Your task to perform on an android device: find which apps use the phone's location Image 0: 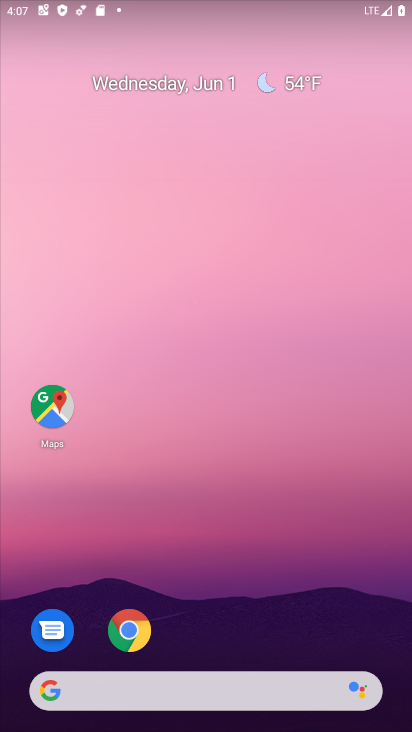
Step 0: drag from (263, 530) to (230, 3)
Your task to perform on an android device: find which apps use the phone's location Image 1: 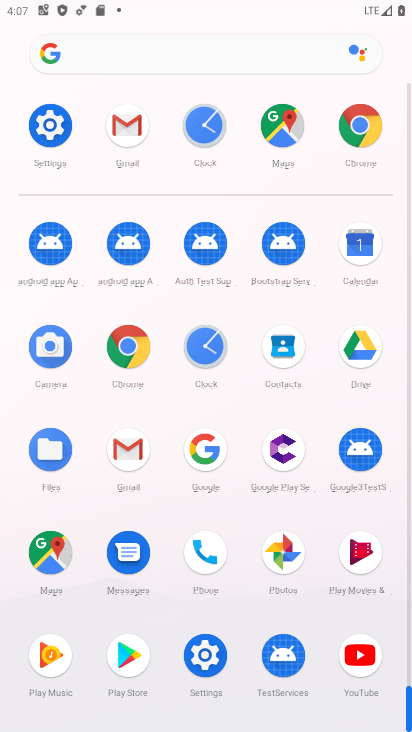
Step 1: drag from (0, 568) to (7, 197)
Your task to perform on an android device: find which apps use the phone's location Image 2: 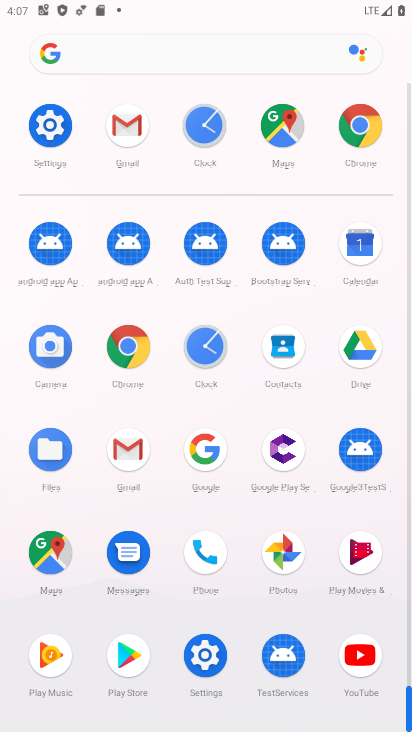
Step 2: click (201, 651)
Your task to perform on an android device: find which apps use the phone's location Image 3: 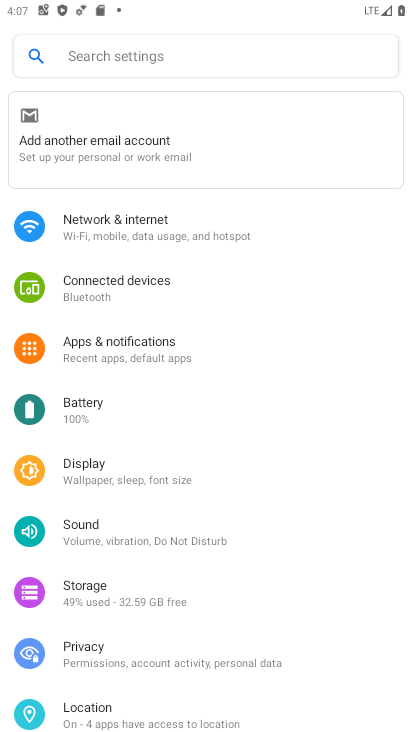
Step 3: drag from (220, 534) to (250, 92)
Your task to perform on an android device: find which apps use the phone's location Image 4: 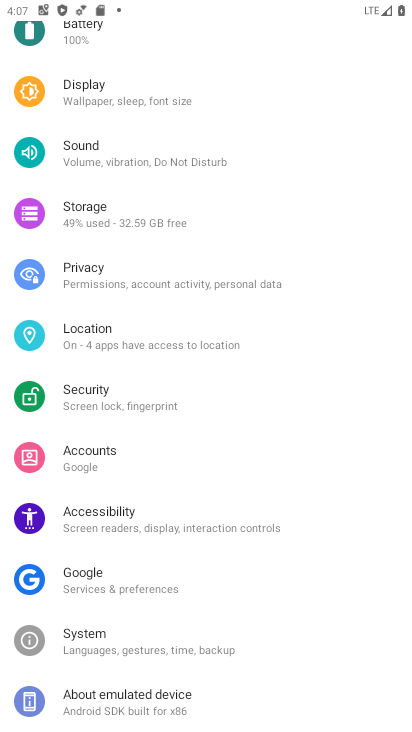
Step 4: drag from (273, 632) to (263, 159)
Your task to perform on an android device: find which apps use the phone's location Image 5: 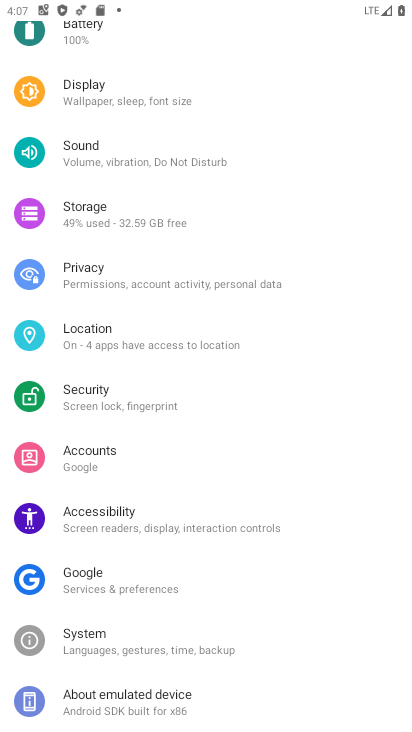
Step 5: drag from (253, 543) to (272, 144)
Your task to perform on an android device: find which apps use the phone's location Image 6: 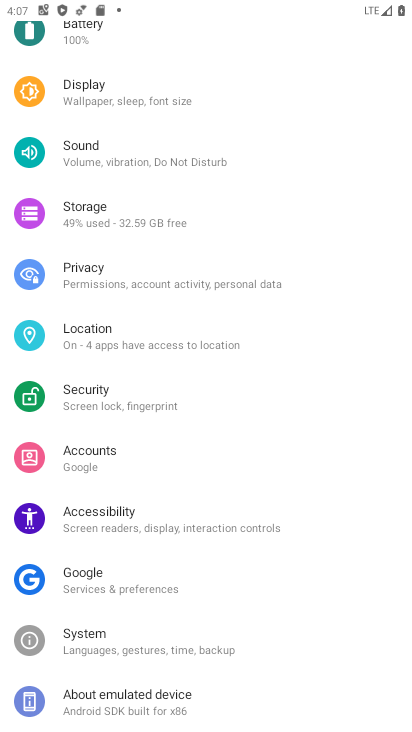
Step 6: drag from (186, 165) to (204, 586)
Your task to perform on an android device: find which apps use the phone's location Image 7: 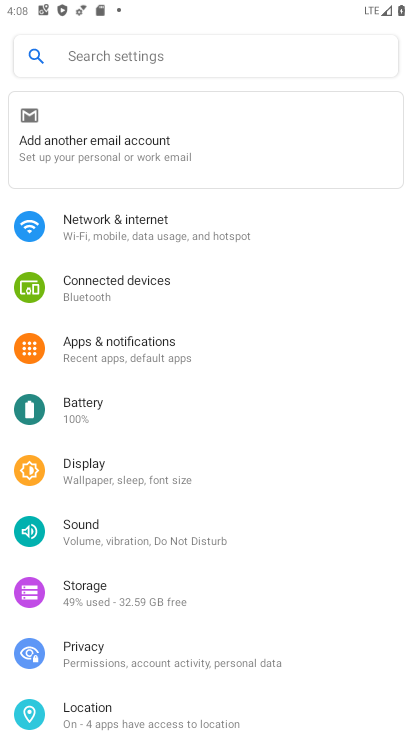
Step 7: drag from (196, 595) to (208, 236)
Your task to perform on an android device: find which apps use the phone's location Image 8: 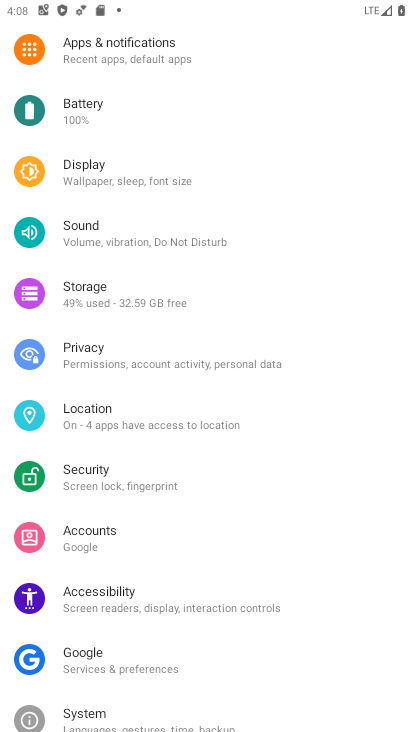
Step 8: drag from (180, 536) to (201, 266)
Your task to perform on an android device: find which apps use the phone's location Image 9: 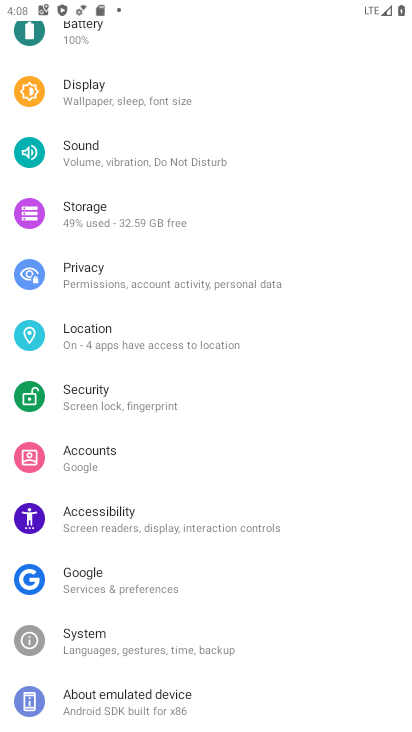
Step 9: click (102, 334)
Your task to perform on an android device: find which apps use the phone's location Image 10: 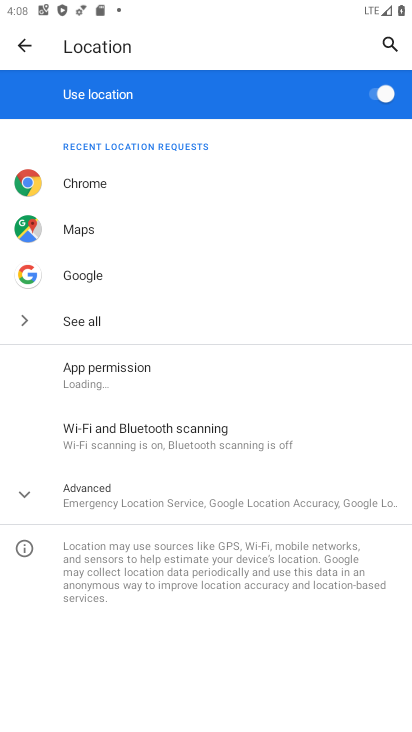
Step 10: click (152, 374)
Your task to perform on an android device: find which apps use the phone's location Image 11: 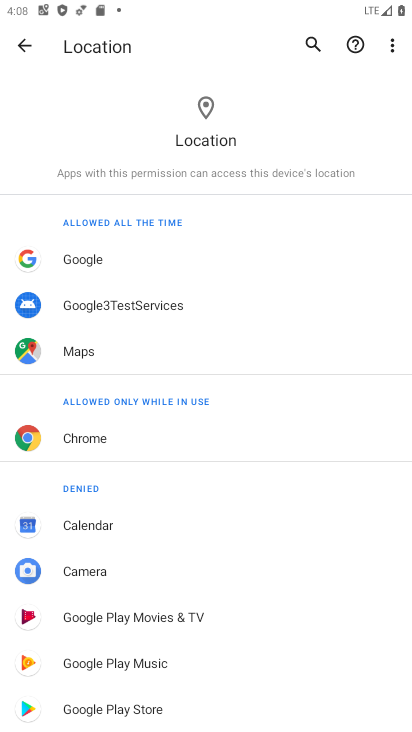
Step 11: task complete